Your task to perform on an android device: turn on showing notifications on the lock screen Image 0: 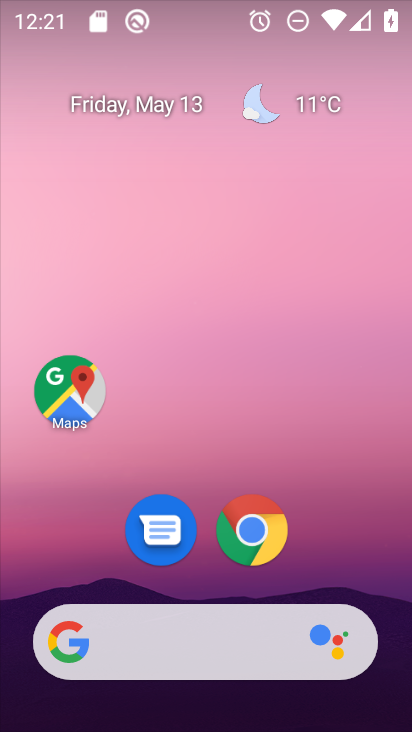
Step 0: press home button
Your task to perform on an android device: turn on showing notifications on the lock screen Image 1: 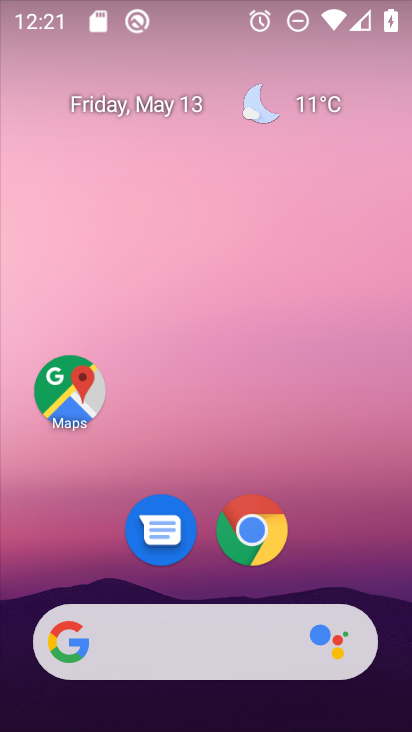
Step 1: drag from (146, 657) to (246, 160)
Your task to perform on an android device: turn on showing notifications on the lock screen Image 2: 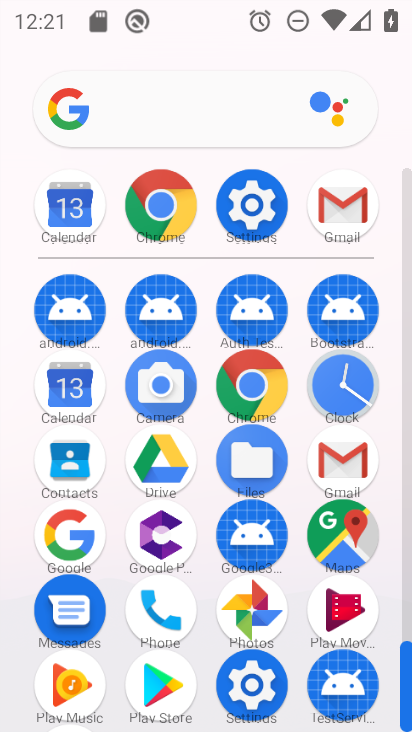
Step 2: click (237, 203)
Your task to perform on an android device: turn on showing notifications on the lock screen Image 3: 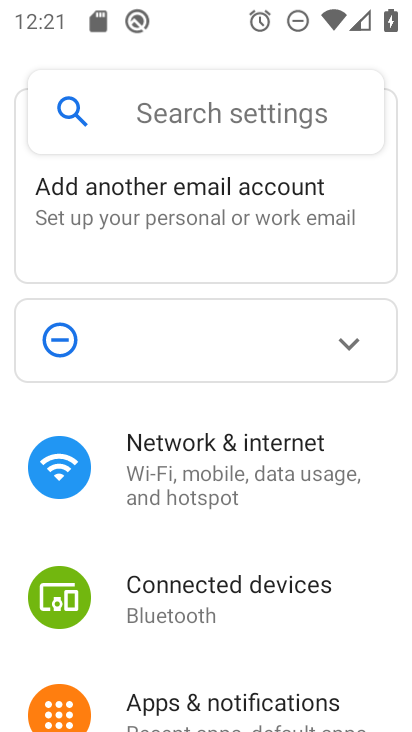
Step 3: drag from (220, 658) to (309, 424)
Your task to perform on an android device: turn on showing notifications on the lock screen Image 4: 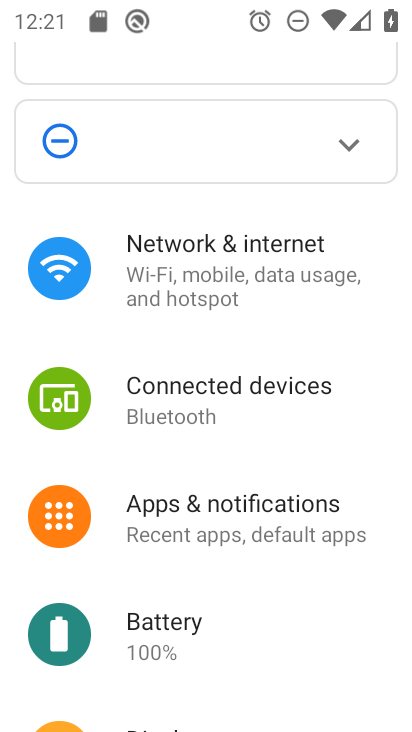
Step 4: click (284, 520)
Your task to perform on an android device: turn on showing notifications on the lock screen Image 5: 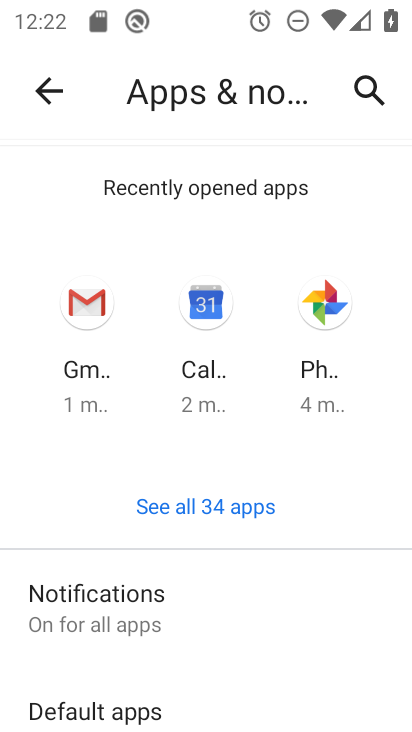
Step 5: click (138, 620)
Your task to perform on an android device: turn on showing notifications on the lock screen Image 6: 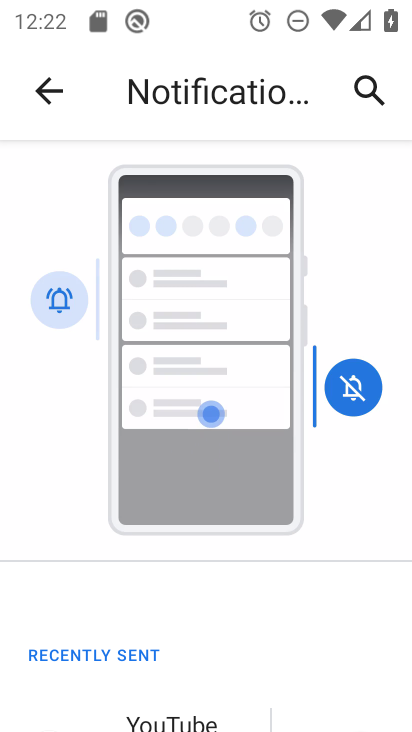
Step 6: drag from (245, 684) to (380, 157)
Your task to perform on an android device: turn on showing notifications on the lock screen Image 7: 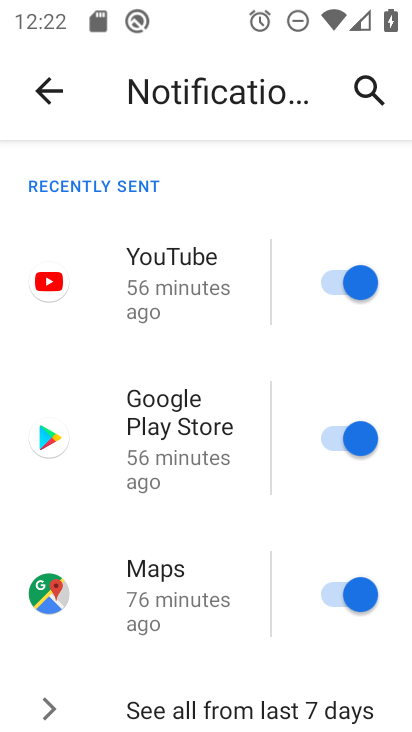
Step 7: drag from (213, 676) to (264, 224)
Your task to perform on an android device: turn on showing notifications on the lock screen Image 8: 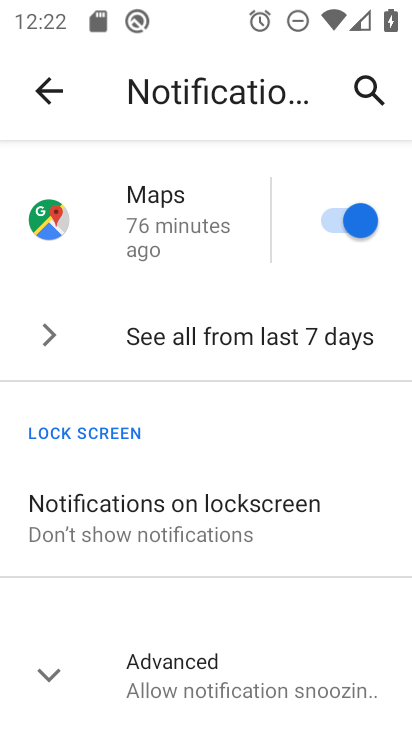
Step 8: click (214, 495)
Your task to perform on an android device: turn on showing notifications on the lock screen Image 9: 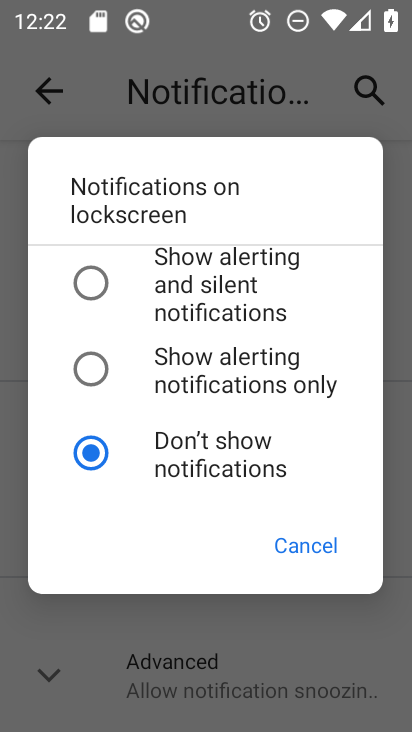
Step 9: click (85, 286)
Your task to perform on an android device: turn on showing notifications on the lock screen Image 10: 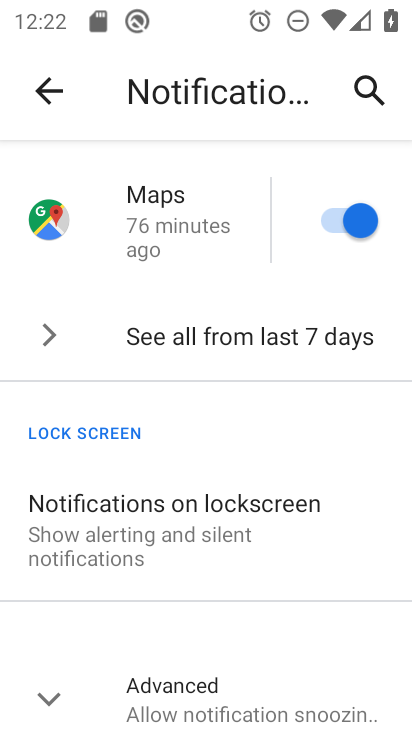
Step 10: task complete